Your task to perform on an android device: open app "VLC for Android" (install if not already installed) Image 0: 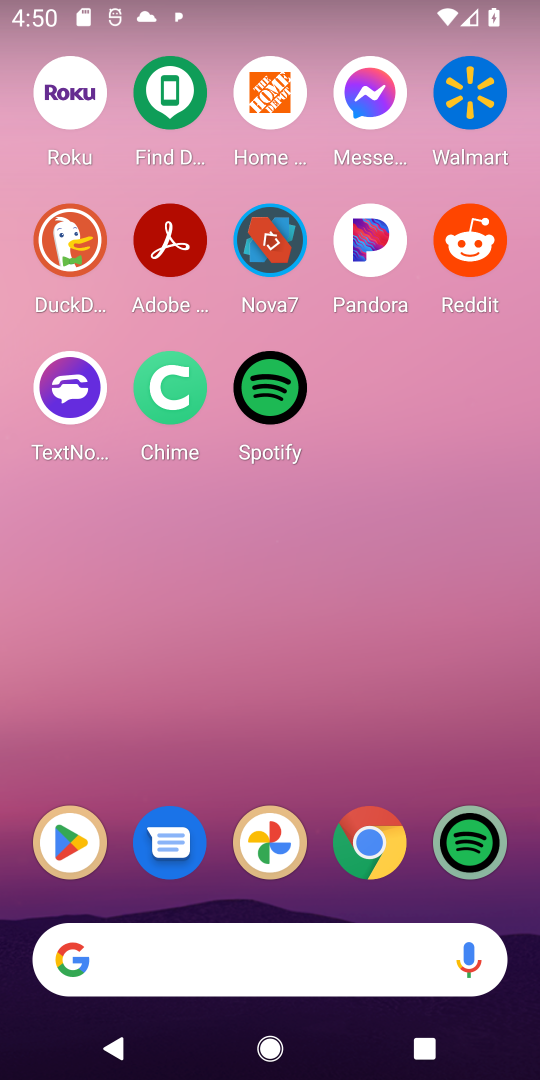
Step 0: click (71, 841)
Your task to perform on an android device: open app "VLC for Android" (install if not already installed) Image 1: 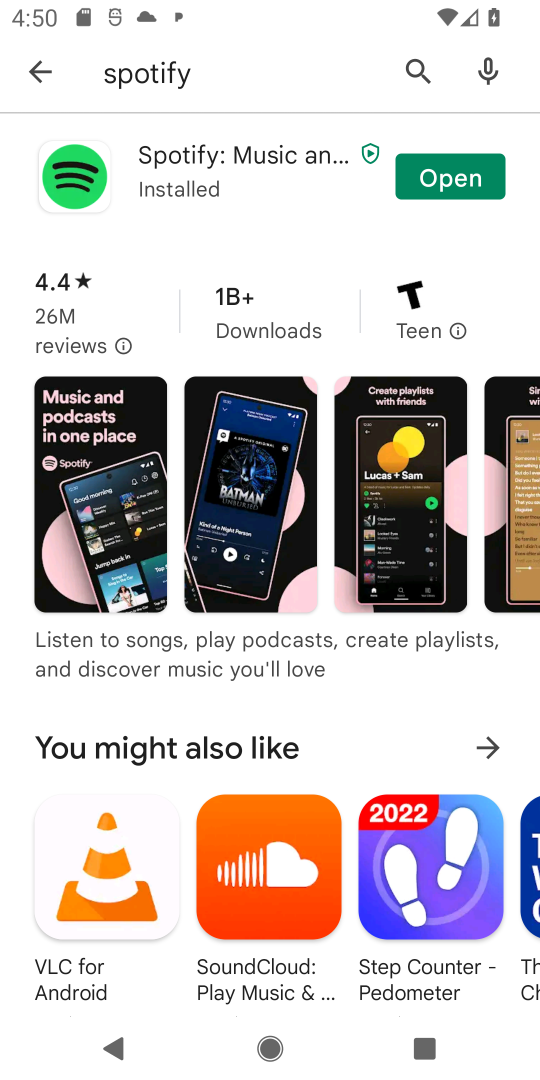
Step 1: click (96, 889)
Your task to perform on an android device: open app "VLC for Android" (install if not already installed) Image 2: 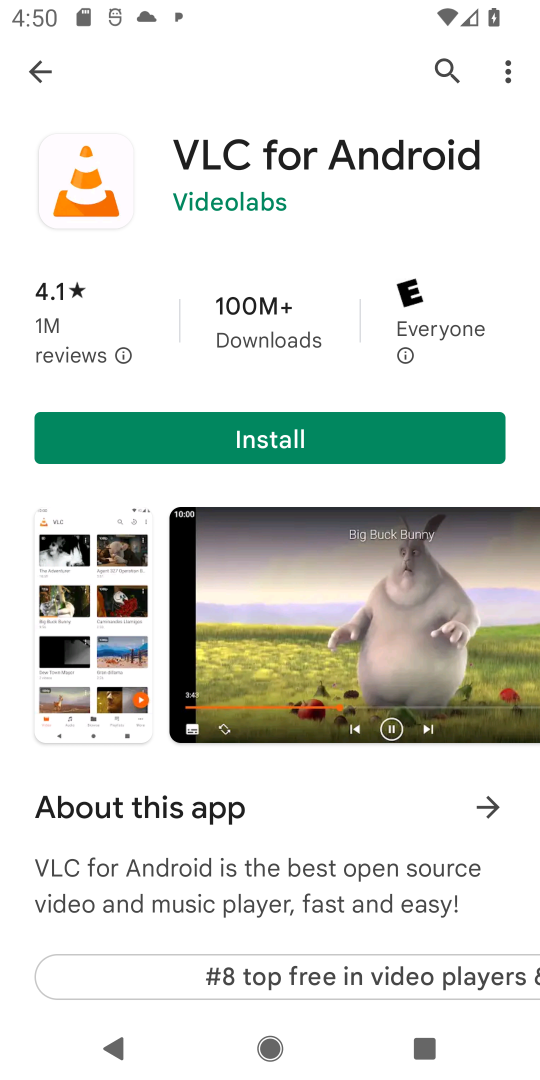
Step 2: click (276, 455)
Your task to perform on an android device: open app "VLC for Android" (install if not already installed) Image 3: 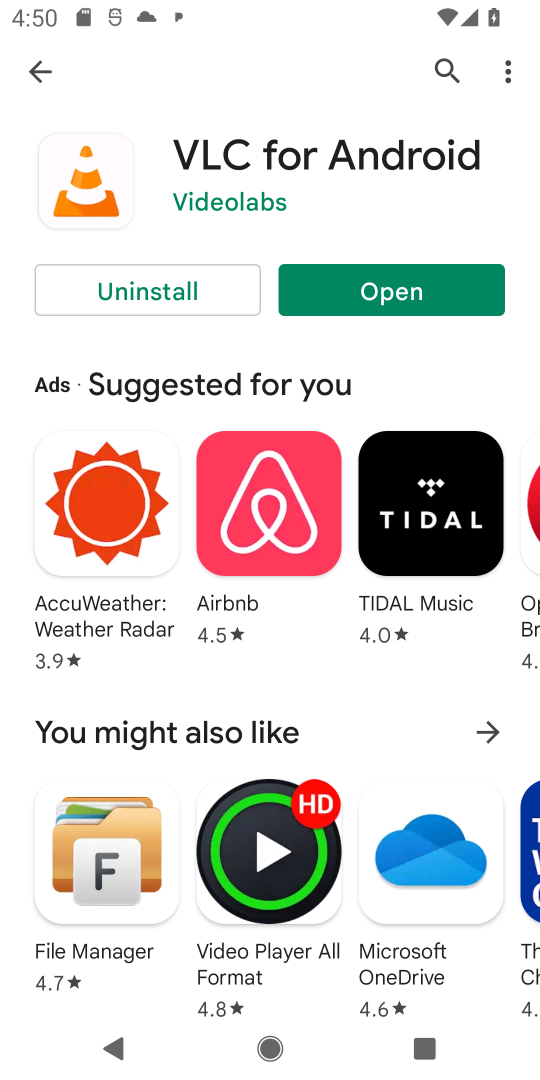
Step 3: click (403, 283)
Your task to perform on an android device: open app "VLC for Android" (install if not already installed) Image 4: 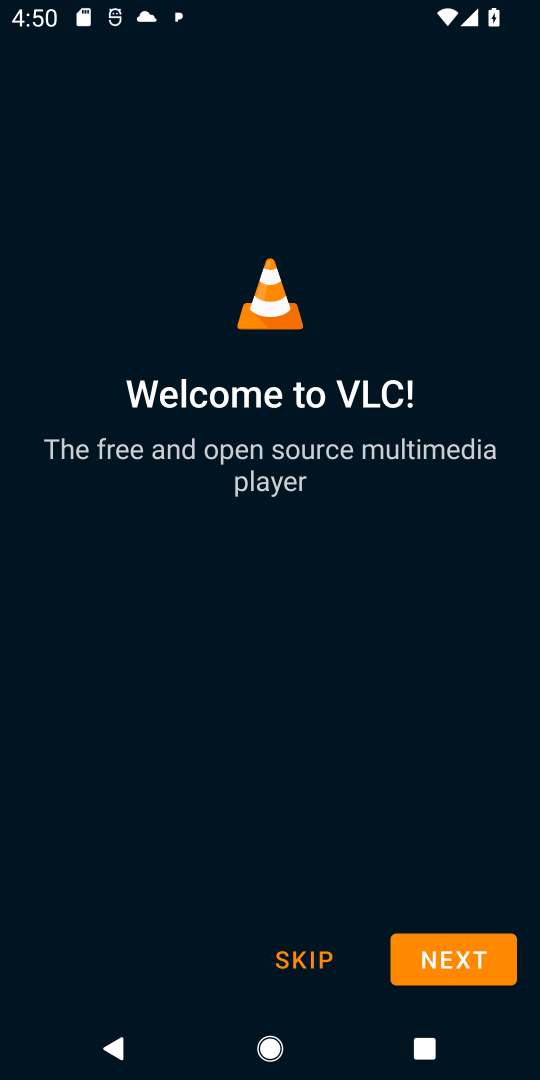
Step 4: task complete